Your task to perform on an android device: Open Yahoo.com Image 0: 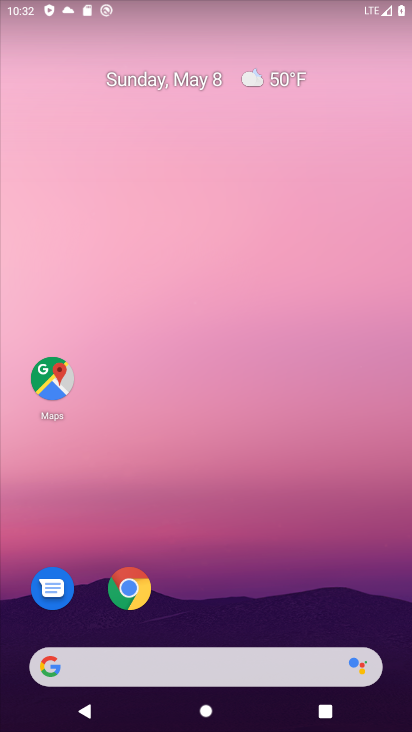
Step 0: click (146, 600)
Your task to perform on an android device: Open Yahoo.com Image 1: 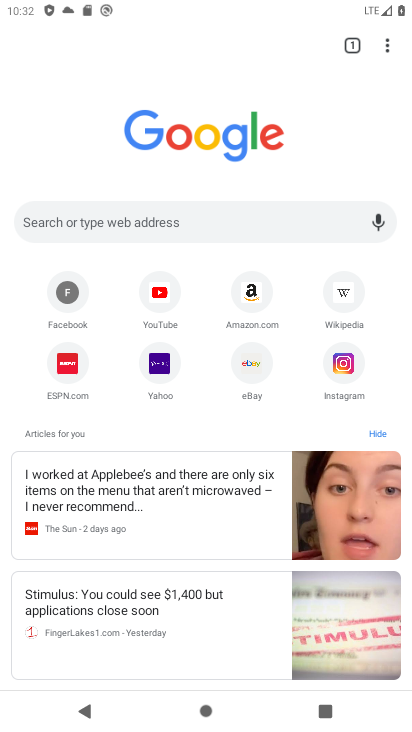
Step 1: click (166, 363)
Your task to perform on an android device: Open Yahoo.com Image 2: 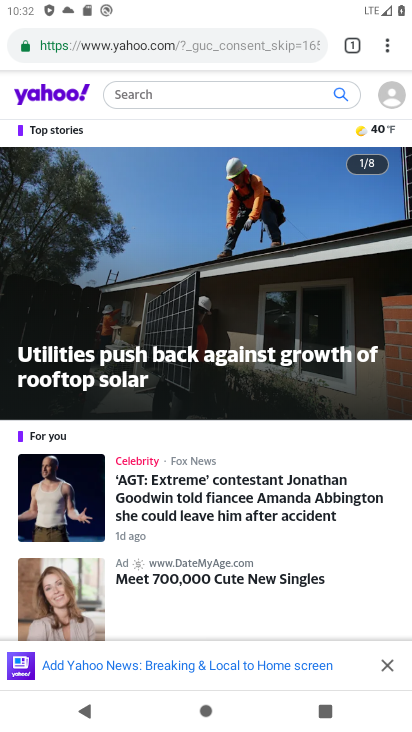
Step 2: task complete